Your task to perform on an android device: turn notification dots off Image 0: 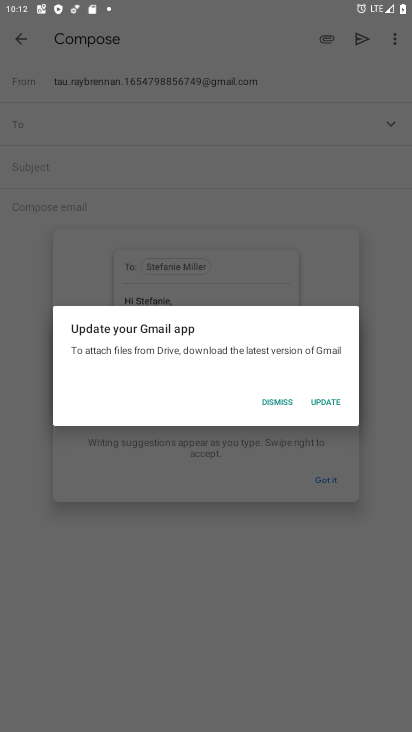
Step 0: press home button
Your task to perform on an android device: turn notification dots off Image 1: 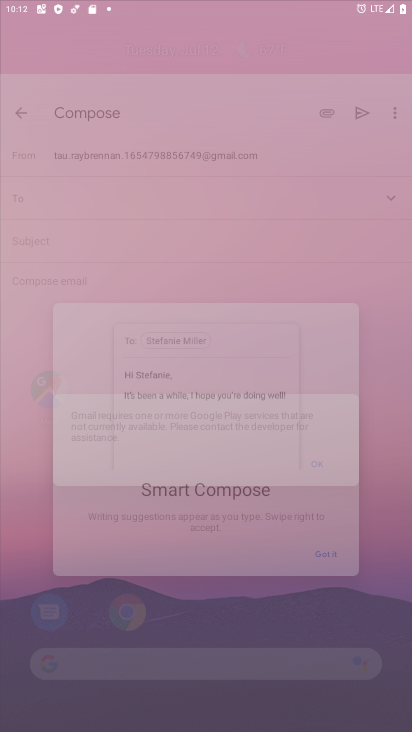
Step 1: drag from (239, 582) to (248, 126)
Your task to perform on an android device: turn notification dots off Image 2: 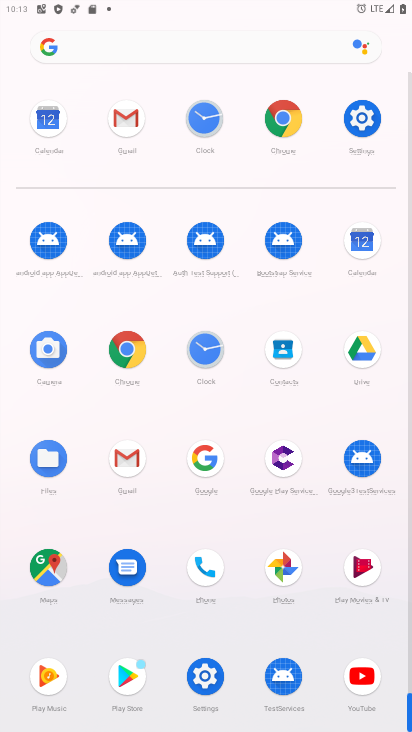
Step 2: click (361, 120)
Your task to perform on an android device: turn notification dots off Image 3: 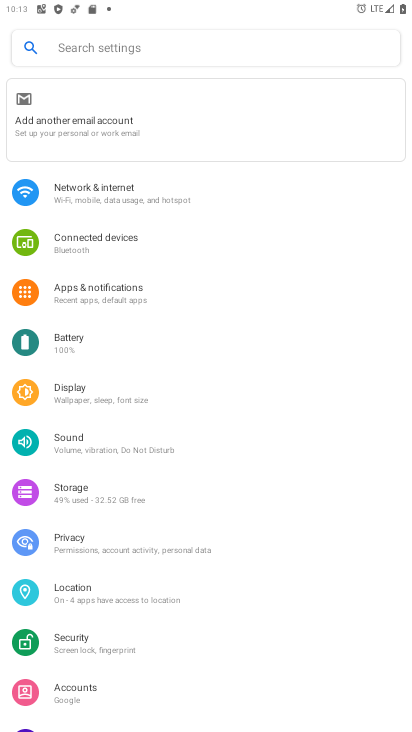
Step 3: click (112, 296)
Your task to perform on an android device: turn notification dots off Image 4: 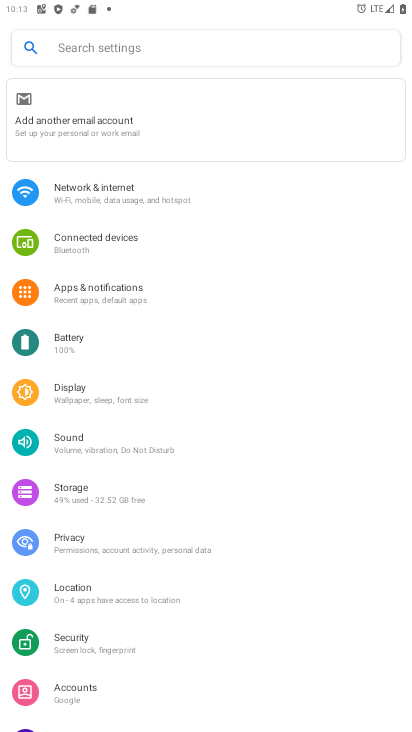
Step 4: click (112, 296)
Your task to perform on an android device: turn notification dots off Image 5: 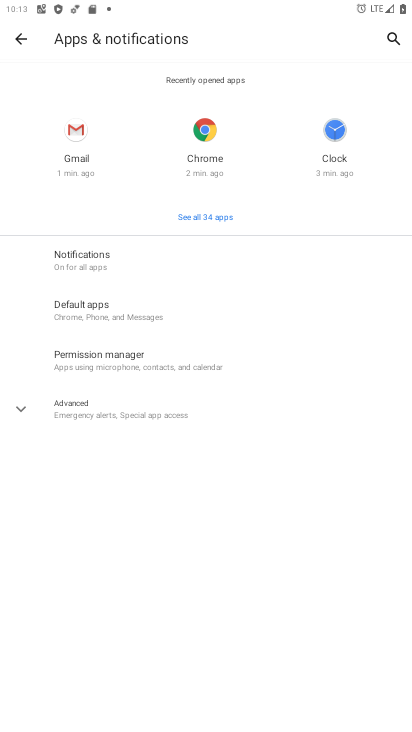
Step 5: click (133, 265)
Your task to perform on an android device: turn notification dots off Image 6: 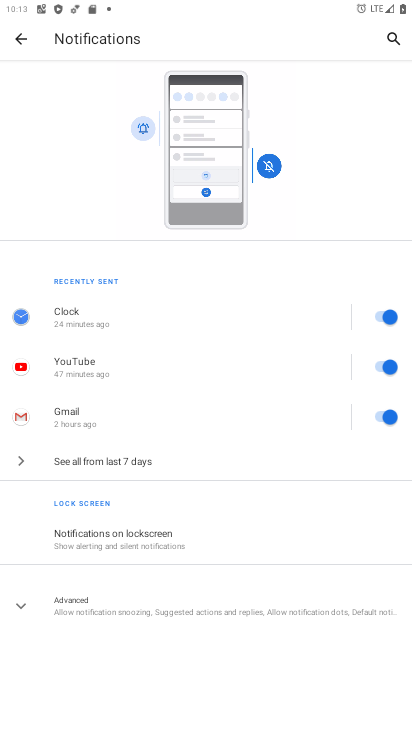
Step 6: click (91, 595)
Your task to perform on an android device: turn notification dots off Image 7: 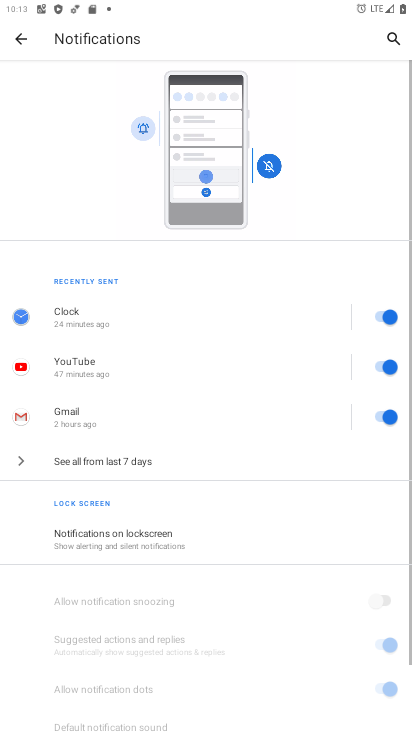
Step 7: drag from (100, 574) to (267, 190)
Your task to perform on an android device: turn notification dots off Image 8: 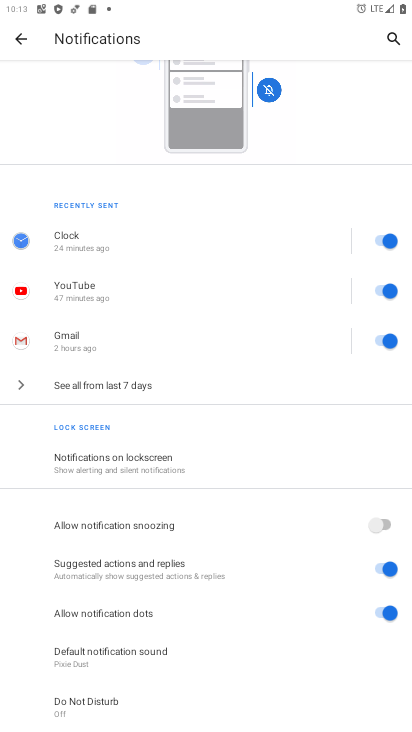
Step 8: drag from (170, 495) to (254, 255)
Your task to perform on an android device: turn notification dots off Image 9: 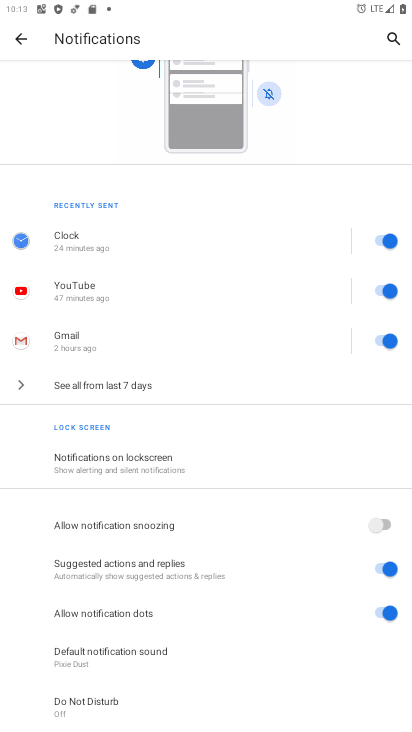
Step 9: drag from (190, 574) to (226, 307)
Your task to perform on an android device: turn notification dots off Image 10: 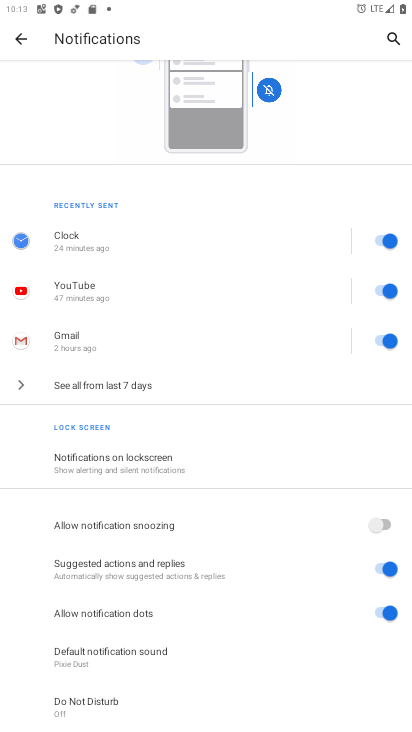
Step 10: click (381, 612)
Your task to perform on an android device: turn notification dots off Image 11: 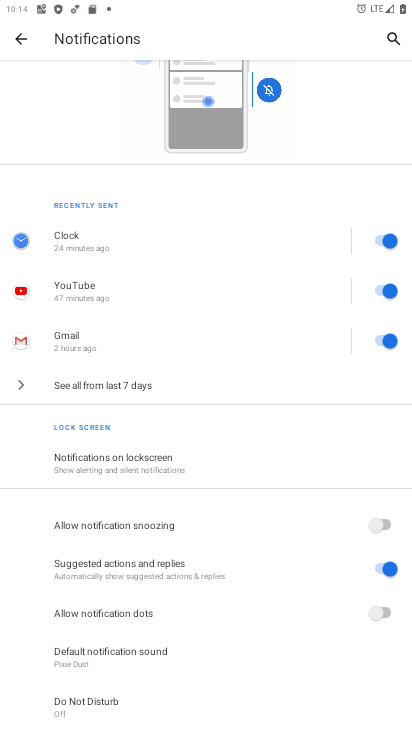
Step 11: task complete